Your task to perform on an android device: Open eBay Image 0: 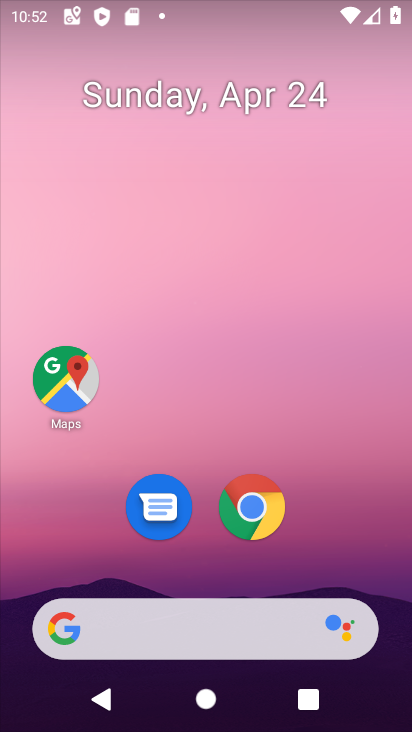
Step 0: drag from (376, 572) to (365, 402)
Your task to perform on an android device: Open eBay Image 1: 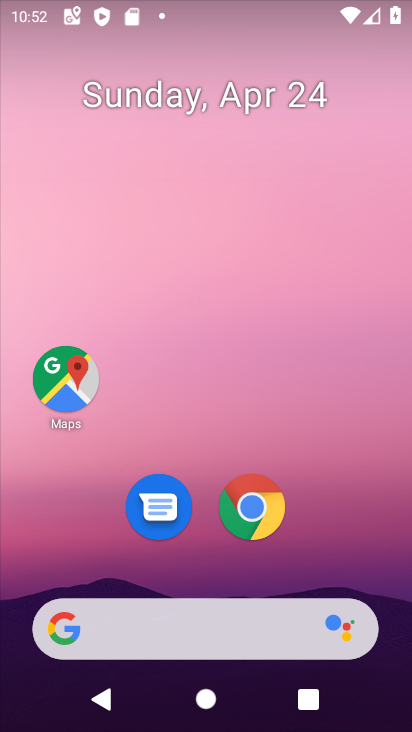
Step 1: click (253, 514)
Your task to perform on an android device: Open eBay Image 2: 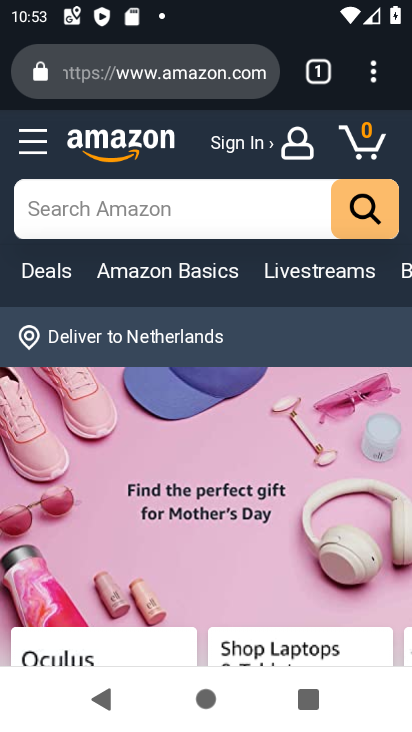
Step 2: click (207, 79)
Your task to perform on an android device: Open eBay Image 3: 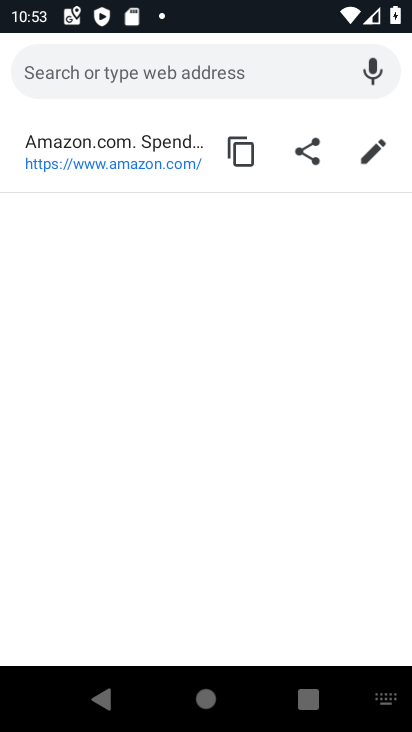
Step 3: type "ebay"
Your task to perform on an android device: Open eBay Image 4: 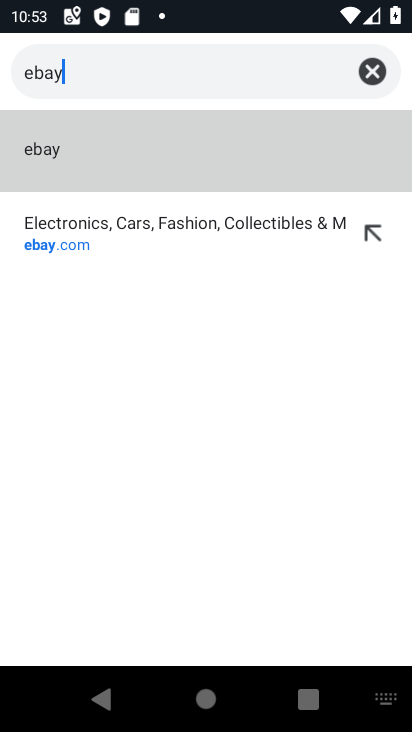
Step 4: click (150, 240)
Your task to perform on an android device: Open eBay Image 5: 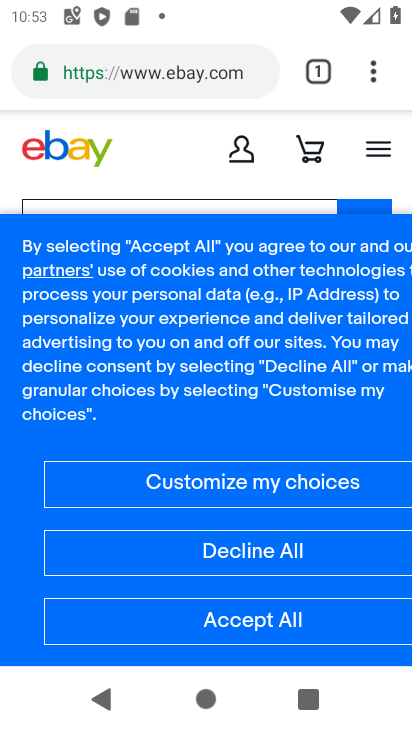
Step 5: task complete